Your task to perform on an android device: Open Maps and search for coffee Image 0: 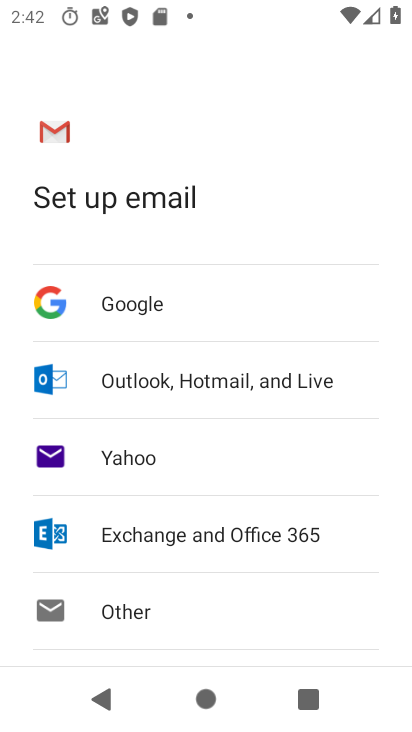
Step 0: press home button
Your task to perform on an android device: Open Maps and search for coffee Image 1: 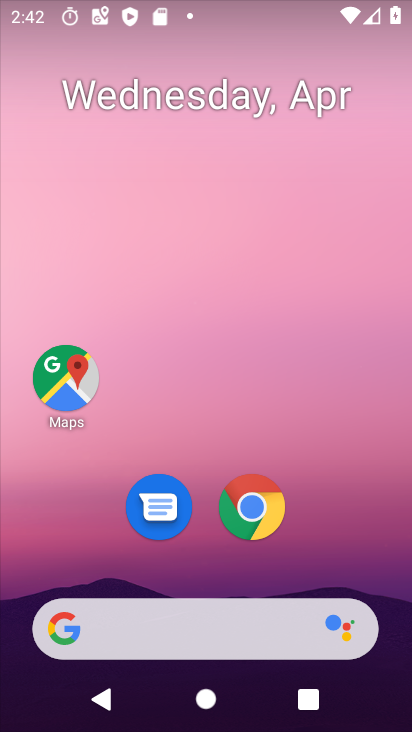
Step 1: click (54, 385)
Your task to perform on an android device: Open Maps and search for coffee Image 2: 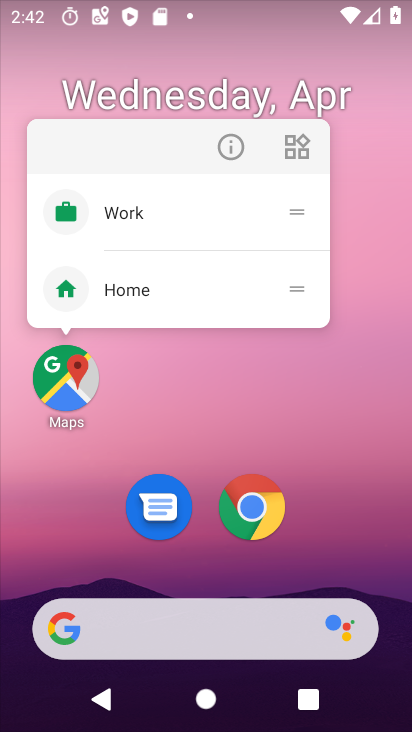
Step 2: click (54, 385)
Your task to perform on an android device: Open Maps and search for coffee Image 3: 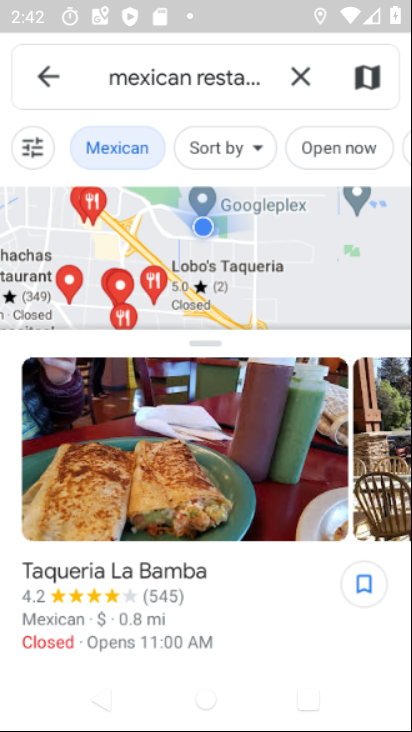
Step 3: click (297, 76)
Your task to perform on an android device: Open Maps and search for coffee Image 4: 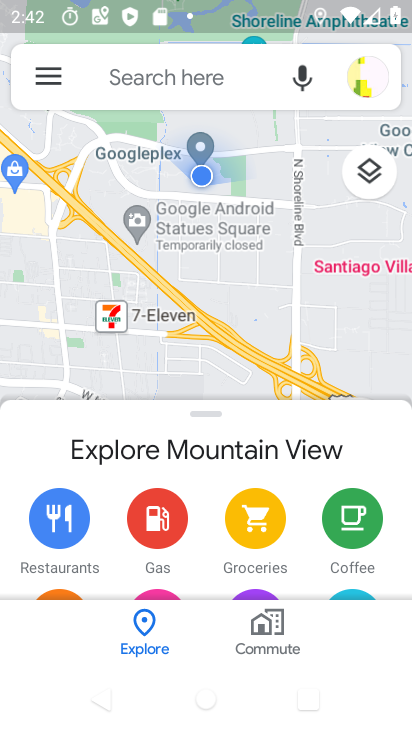
Step 4: click (165, 93)
Your task to perform on an android device: Open Maps and search for coffee Image 5: 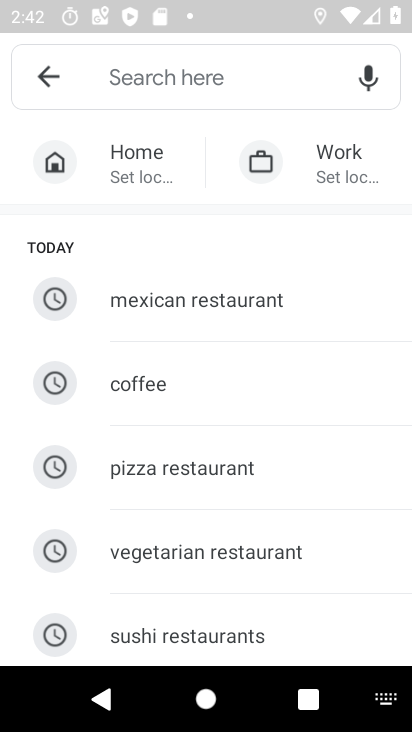
Step 5: click (129, 386)
Your task to perform on an android device: Open Maps and search for coffee Image 6: 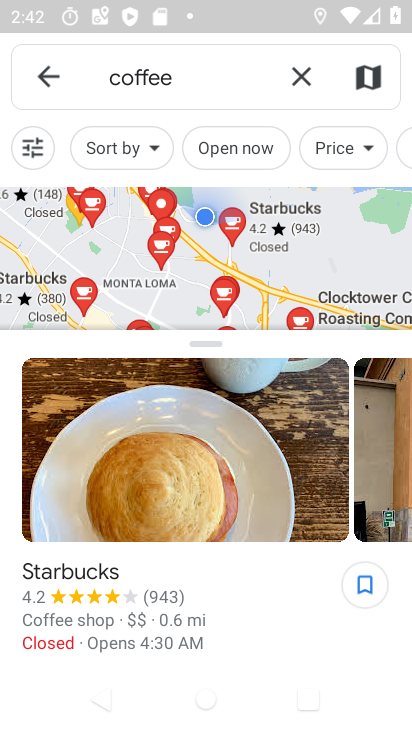
Step 6: task complete